Your task to perform on an android device: Is it going to rain today? Image 0: 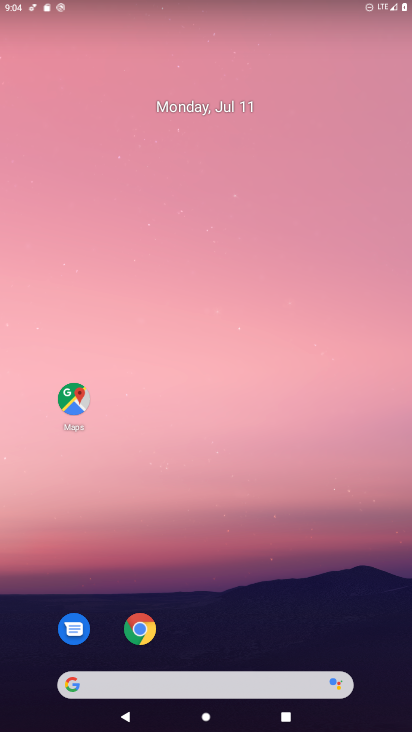
Step 0: click (144, 689)
Your task to perform on an android device: Is it going to rain today? Image 1: 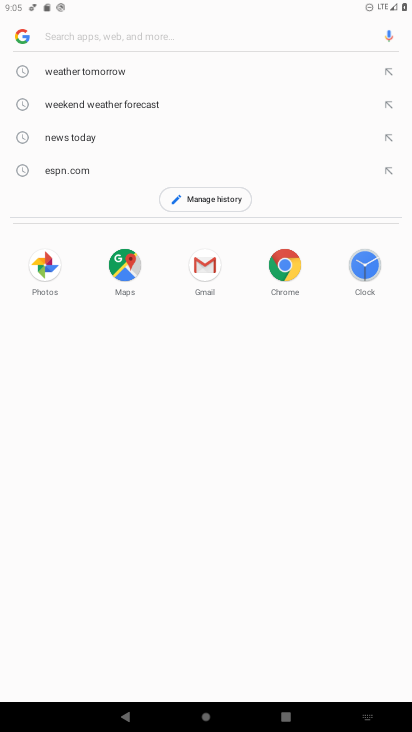
Step 1: type "weather"
Your task to perform on an android device: Is it going to rain today? Image 2: 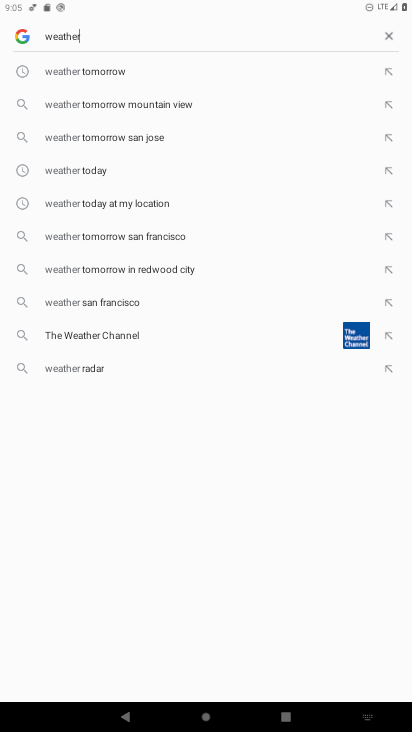
Step 2: click (150, 166)
Your task to perform on an android device: Is it going to rain today? Image 3: 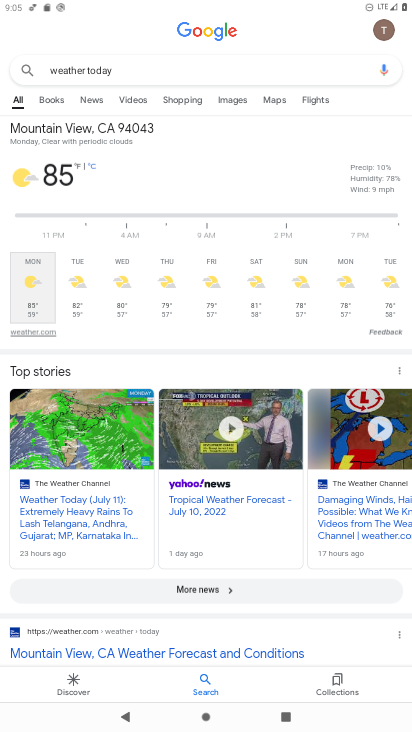
Step 3: task complete